Your task to perform on an android device: Open Yahoo.com Image 0: 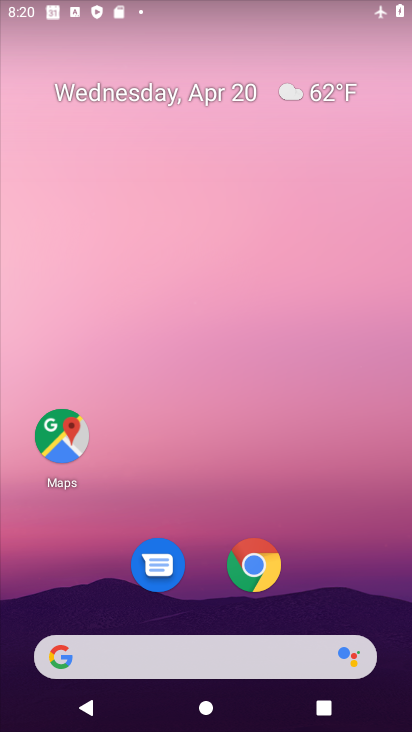
Step 0: drag from (330, 473) to (340, 86)
Your task to perform on an android device: Open Yahoo.com Image 1: 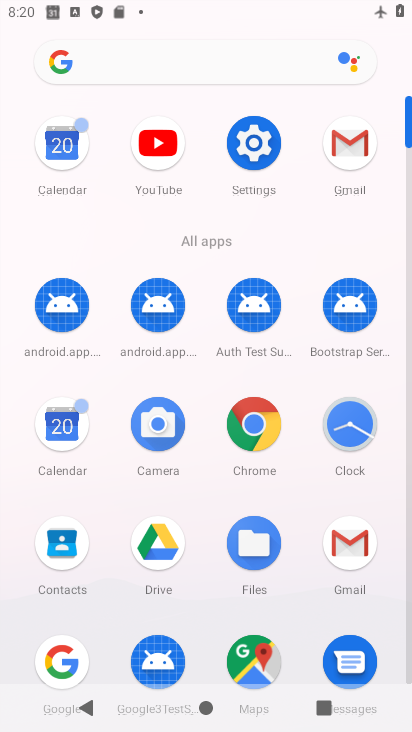
Step 1: click (259, 437)
Your task to perform on an android device: Open Yahoo.com Image 2: 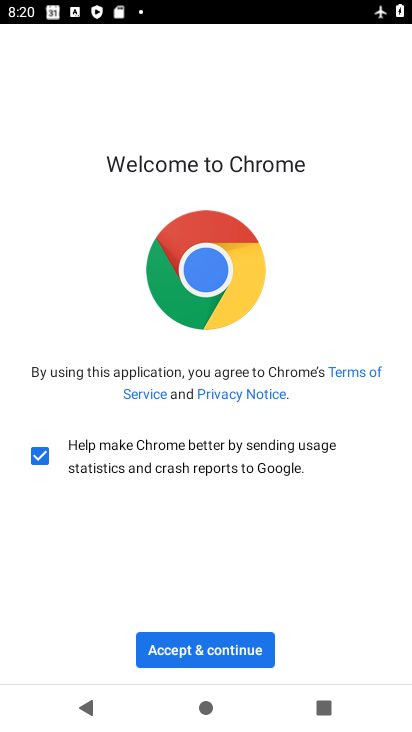
Step 2: click (196, 647)
Your task to perform on an android device: Open Yahoo.com Image 3: 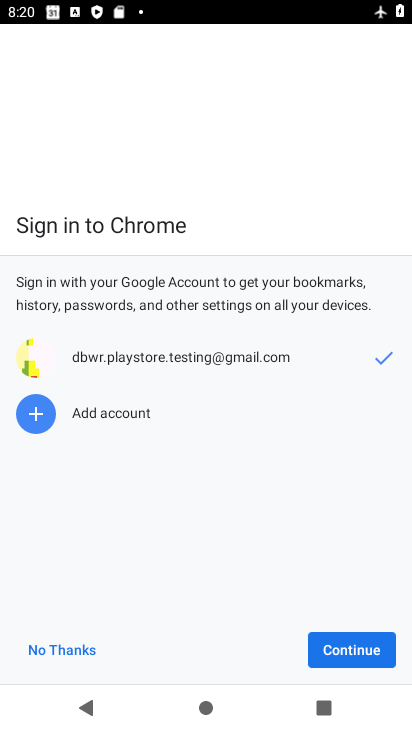
Step 3: click (90, 654)
Your task to perform on an android device: Open Yahoo.com Image 4: 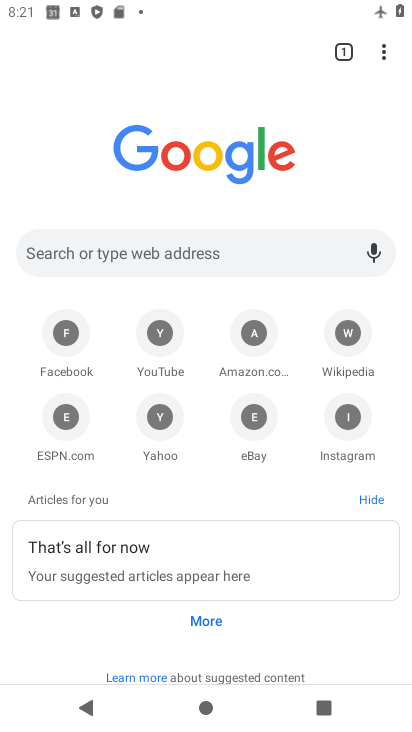
Step 4: click (150, 416)
Your task to perform on an android device: Open Yahoo.com Image 5: 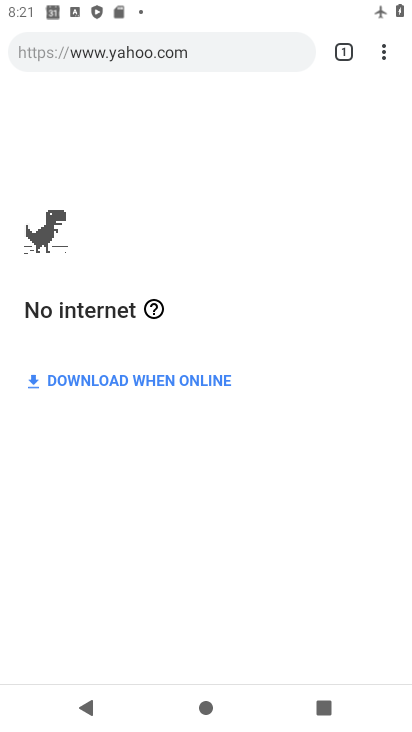
Step 5: task complete